Your task to perform on an android device: Go to Google maps Image 0: 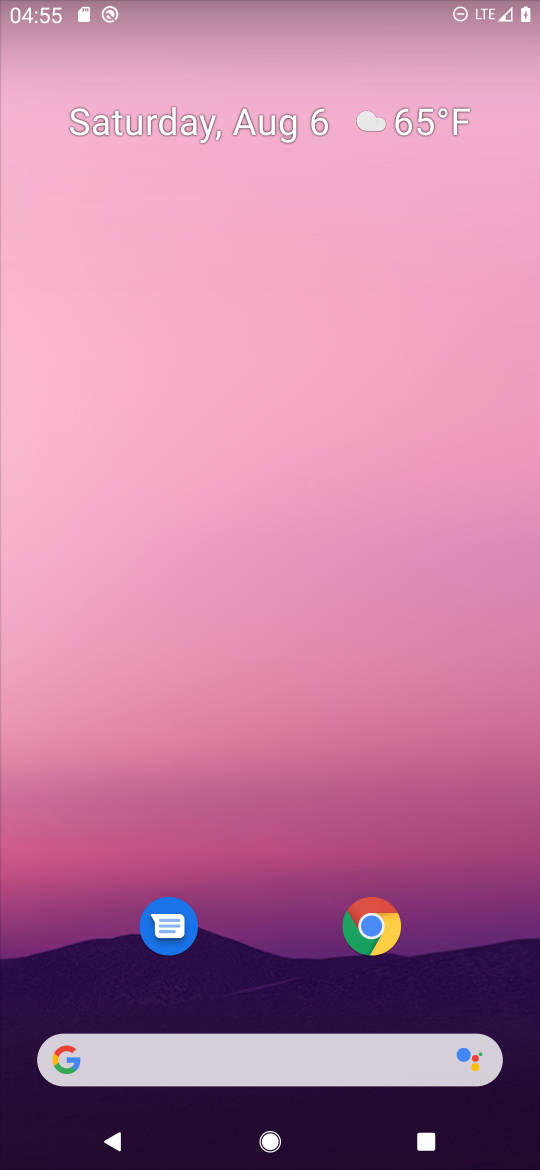
Step 0: drag from (266, 915) to (295, 219)
Your task to perform on an android device: Go to Google maps Image 1: 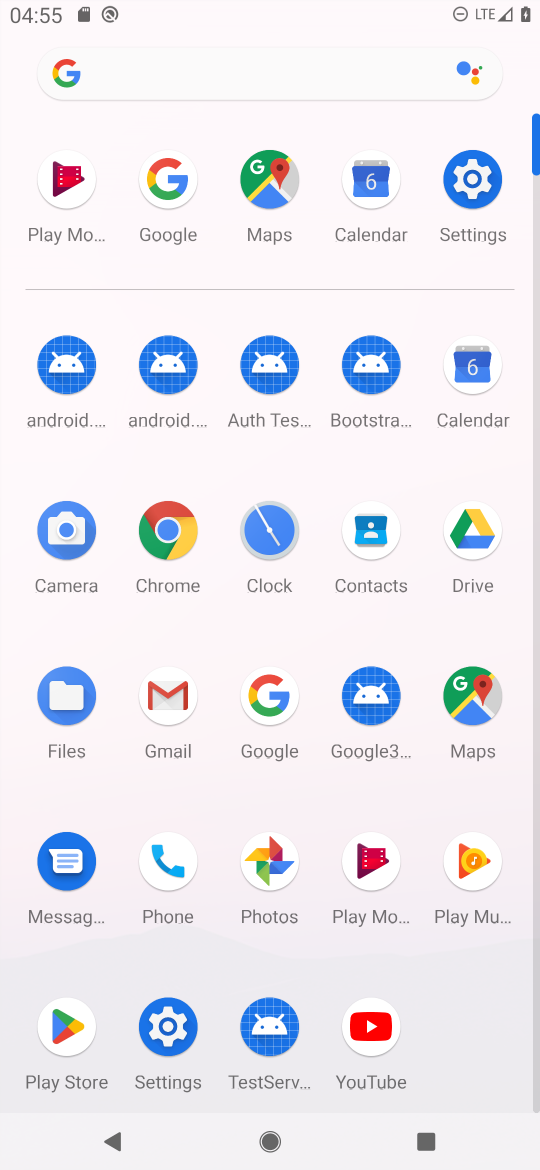
Step 1: click (287, 184)
Your task to perform on an android device: Go to Google maps Image 2: 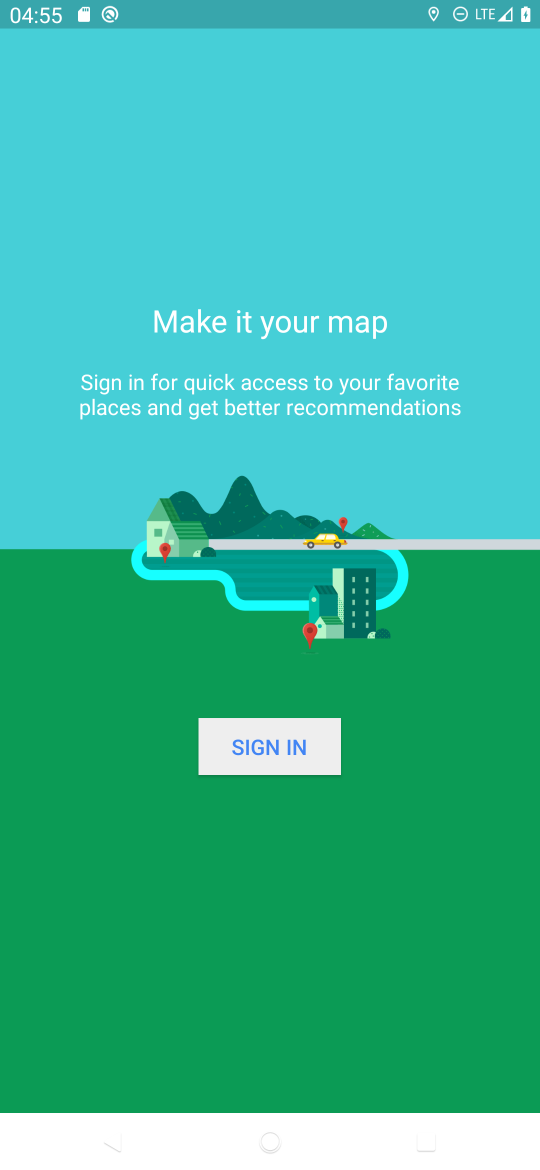
Step 2: task complete